Your task to perform on an android device: turn off smart reply in the gmail app Image 0: 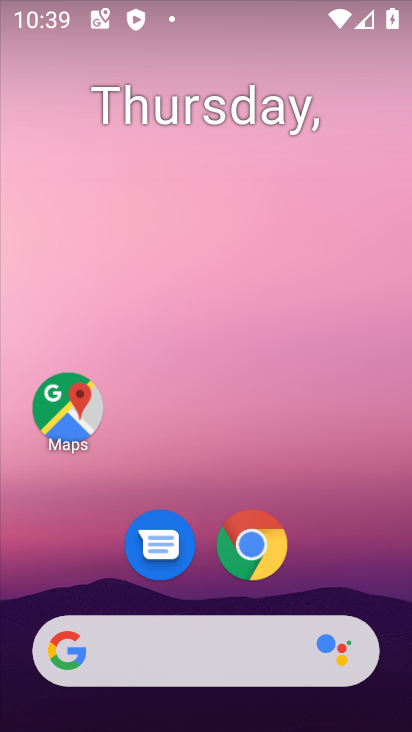
Step 0: drag from (331, 558) to (233, 89)
Your task to perform on an android device: turn off smart reply in the gmail app Image 1: 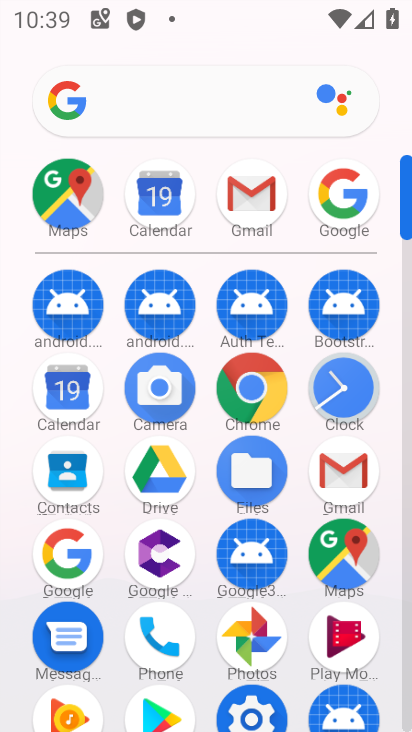
Step 1: click (252, 195)
Your task to perform on an android device: turn off smart reply in the gmail app Image 2: 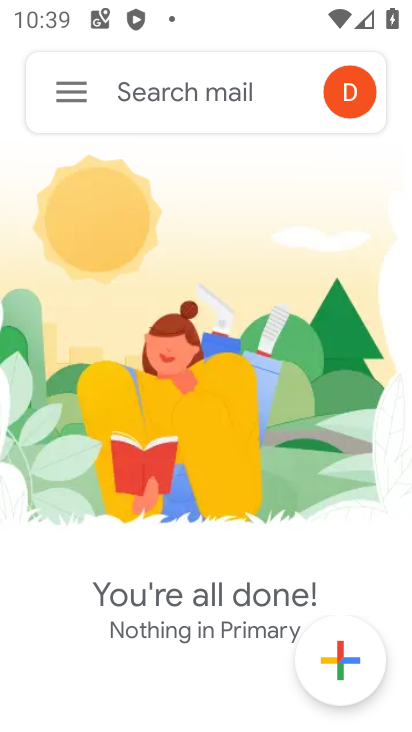
Step 2: click (70, 86)
Your task to perform on an android device: turn off smart reply in the gmail app Image 3: 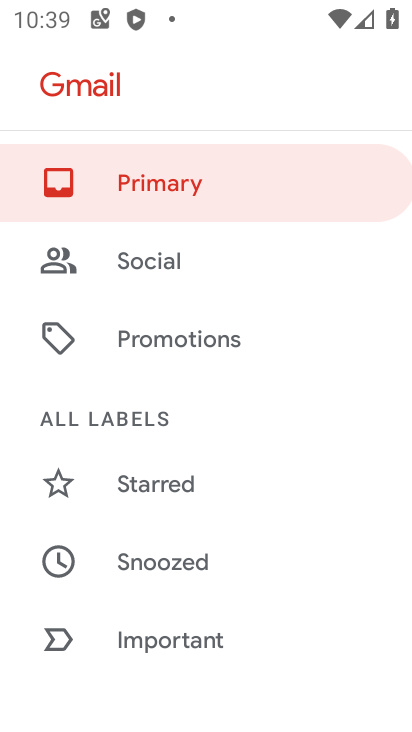
Step 3: drag from (190, 443) to (222, 355)
Your task to perform on an android device: turn off smart reply in the gmail app Image 4: 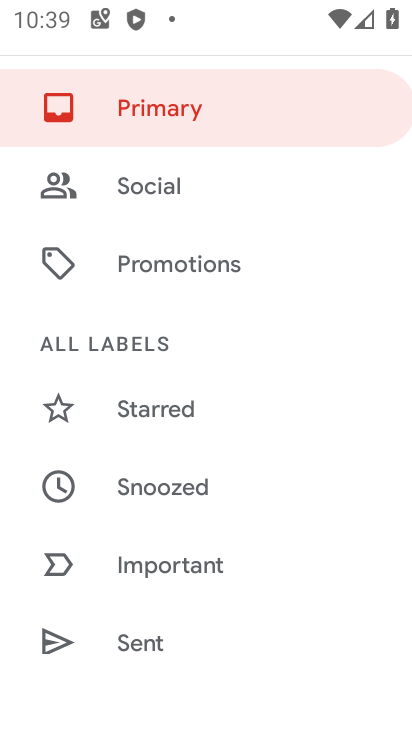
Step 4: drag from (160, 453) to (223, 370)
Your task to perform on an android device: turn off smart reply in the gmail app Image 5: 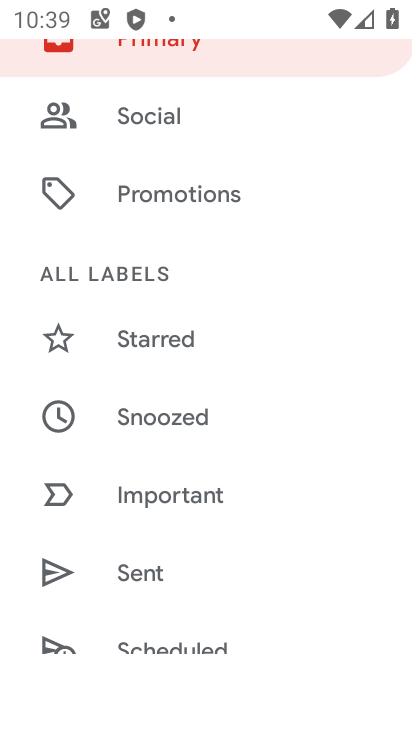
Step 5: drag from (151, 460) to (220, 381)
Your task to perform on an android device: turn off smart reply in the gmail app Image 6: 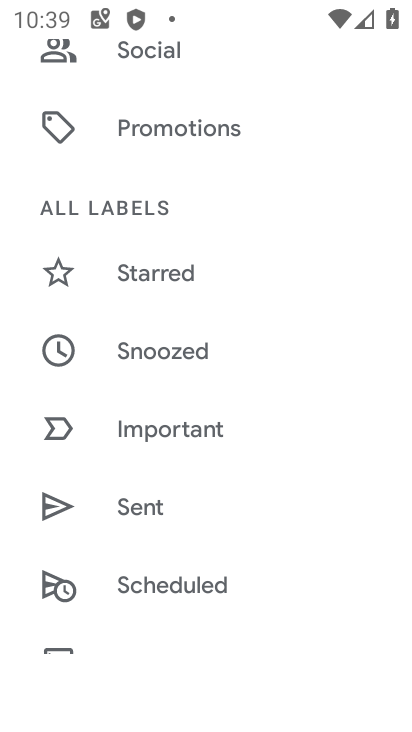
Step 6: drag from (150, 463) to (208, 386)
Your task to perform on an android device: turn off smart reply in the gmail app Image 7: 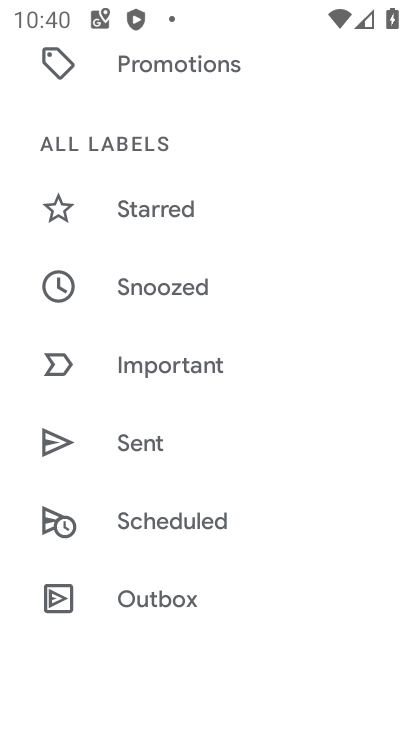
Step 7: drag from (150, 480) to (225, 389)
Your task to perform on an android device: turn off smart reply in the gmail app Image 8: 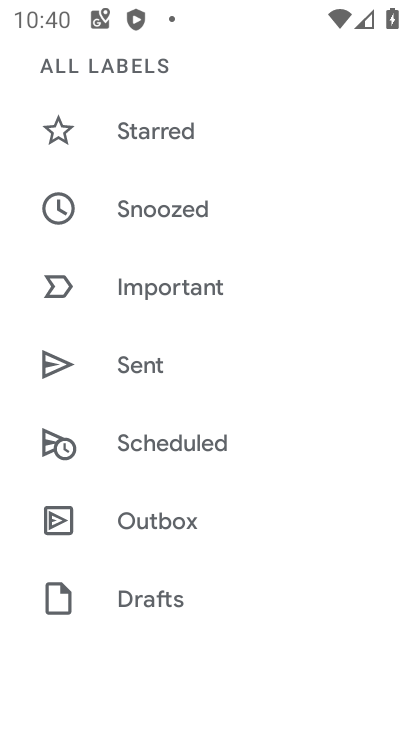
Step 8: drag from (143, 480) to (207, 398)
Your task to perform on an android device: turn off smart reply in the gmail app Image 9: 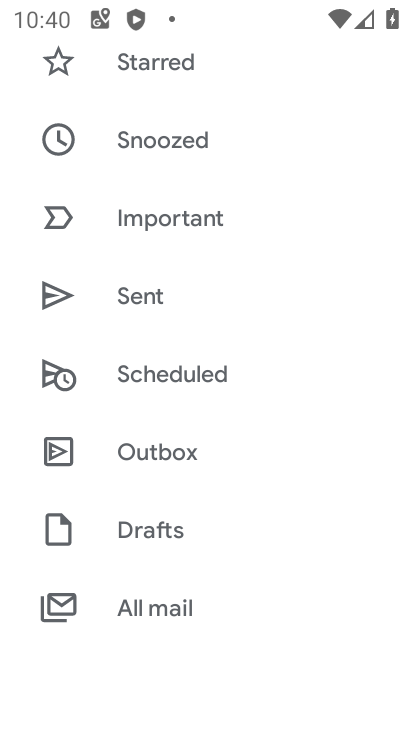
Step 9: drag from (147, 477) to (192, 406)
Your task to perform on an android device: turn off smart reply in the gmail app Image 10: 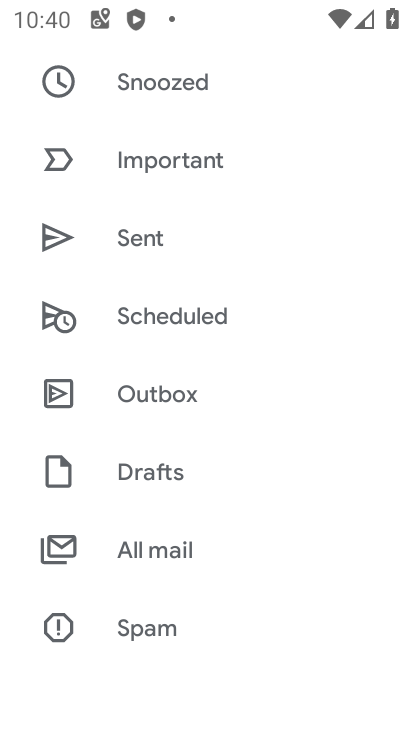
Step 10: drag from (141, 497) to (205, 413)
Your task to perform on an android device: turn off smart reply in the gmail app Image 11: 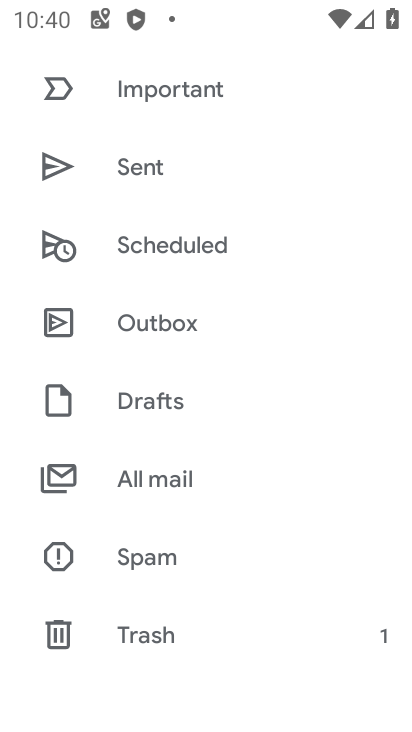
Step 11: drag from (139, 516) to (183, 431)
Your task to perform on an android device: turn off smart reply in the gmail app Image 12: 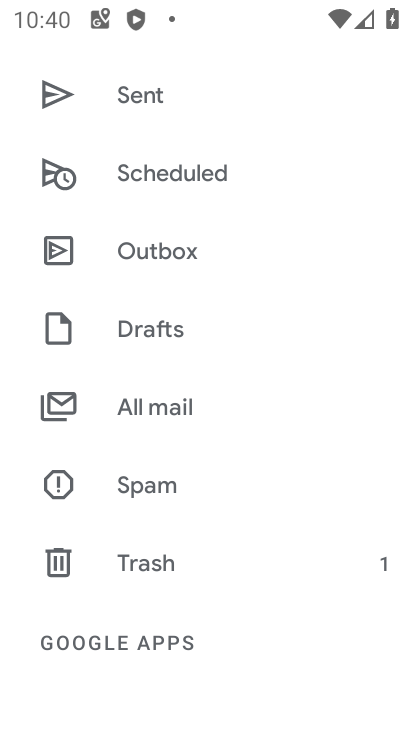
Step 12: drag from (147, 520) to (184, 438)
Your task to perform on an android device: turn off smart reply in the gmail app Image 13: 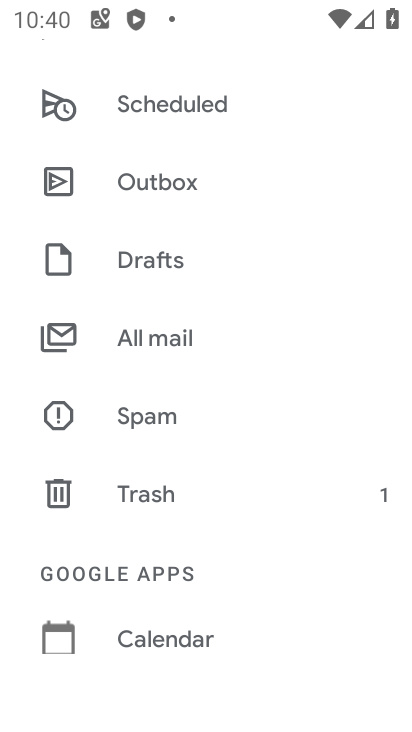
Step 13: drag from (129, 531) to (197, 455)
Your task to perform on an android device: turn off smart reply in the gmail app Image 14: 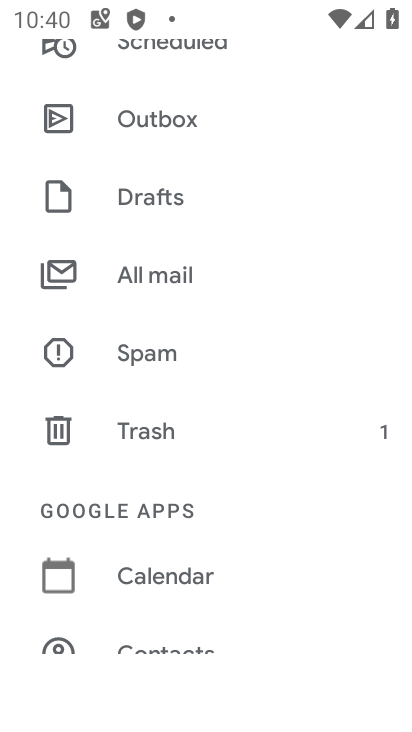
Step 14: drag from (133, 549) to (189, 462)
Your task to perform on an android device: turn off smart reply in the gmail app Image 15: 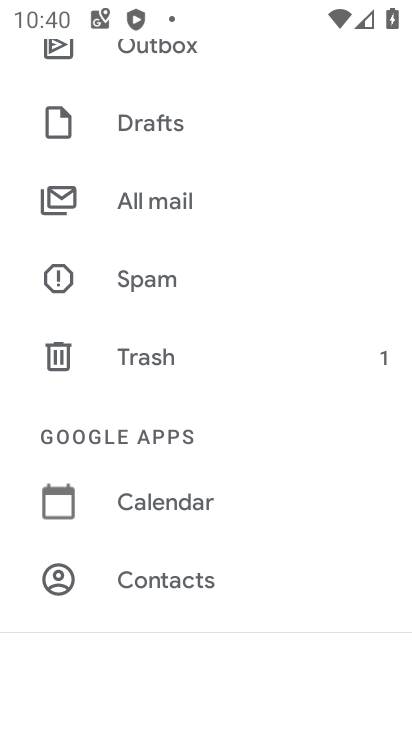
Step 15: drag from (133, 549) to (186, 460)
Your task to perform on an android device: turn off smart reply in the gmail app Image 16: 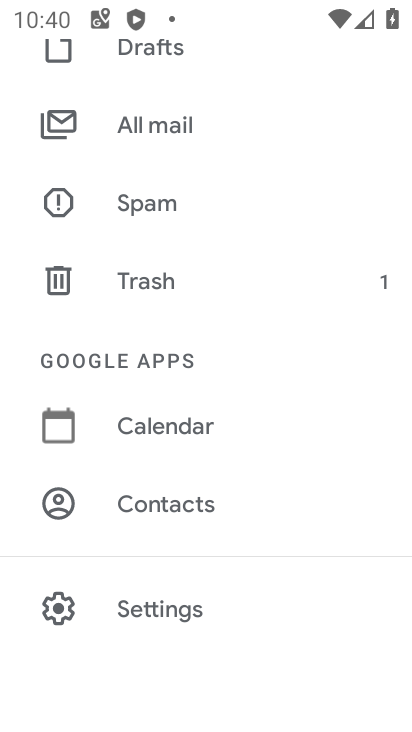
Step 16: drag from (165, 557) to (220, 479)
Your task to perform on an android device: turn off smart reply in the gmail app Image 17: 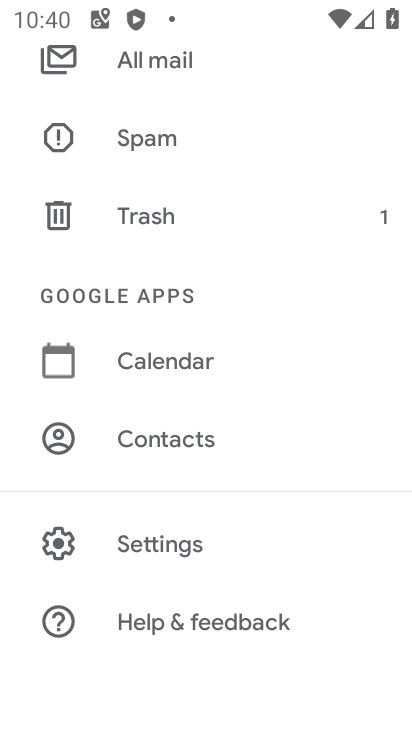
Step 17: click (166, 548)
Your task to perform on an android device: turn off smart reply in the gmail app Image 18: 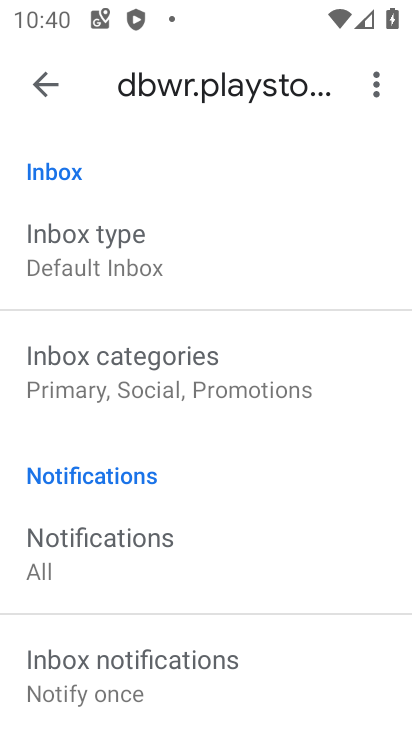
Step 18: task complete